Your task to perform on an android device: open app "LiveIn - Share Your Moment" (install if not already installed) and go to login screen Image 0: 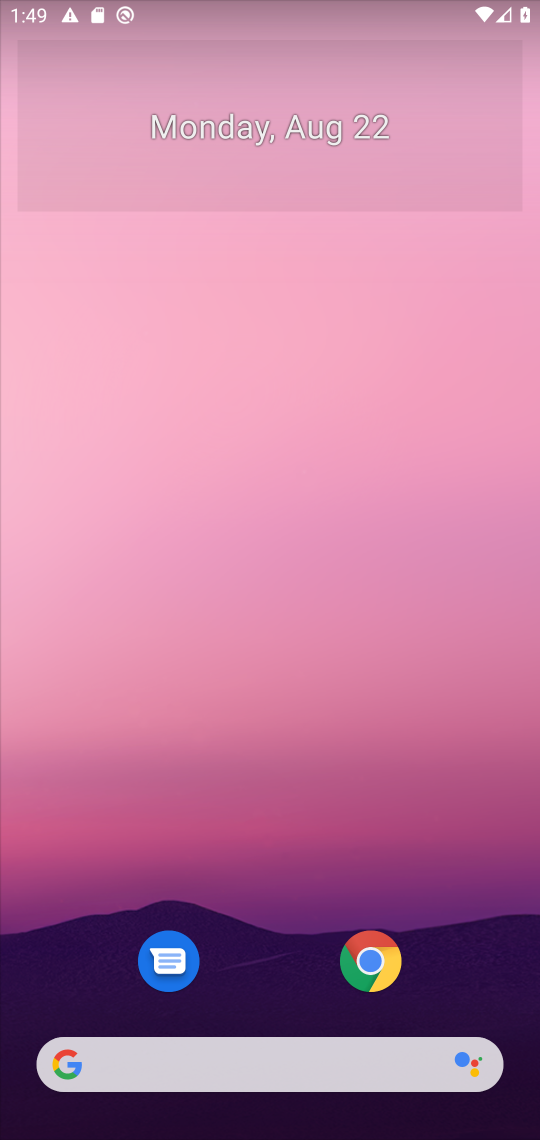
Step 0: press home button
Your task to perform on an android device: open app "LiveIn - Share Your Moment" (install if not already installed) and go to login screen Image 1: 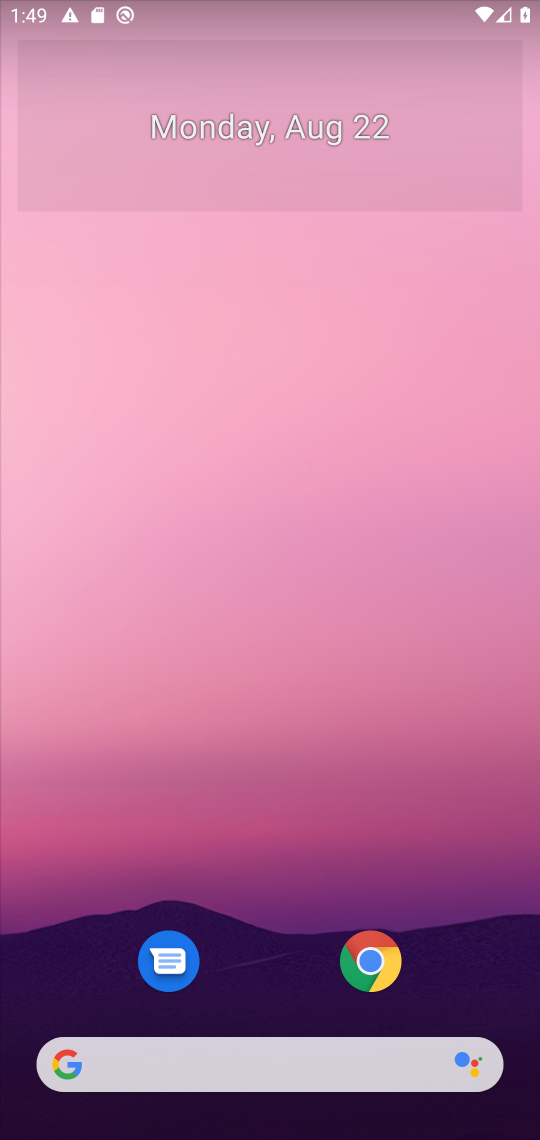
Step 1: drag from (464, 983) to (514, 108)
Your task to perform on an android device: open app "LiveIn - Share Your Moment" (install if not already installed) and go to login screen Image 2: 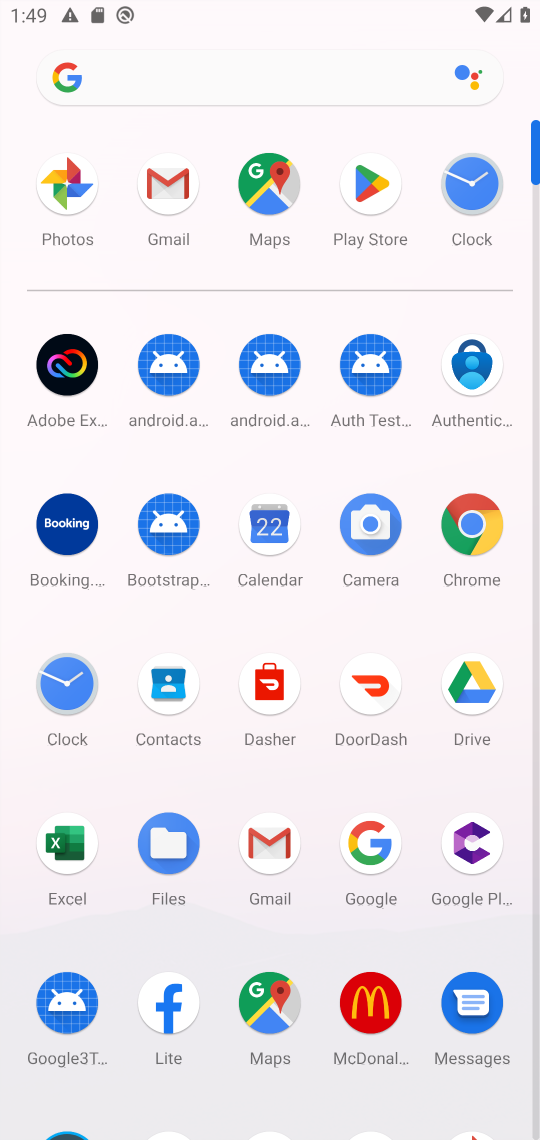
Step 2: click (373, 181)
Your task to perform on an android device: open app "LiveIn - Share Your Moment" (install if not already installed) and go to login screen Image 3: 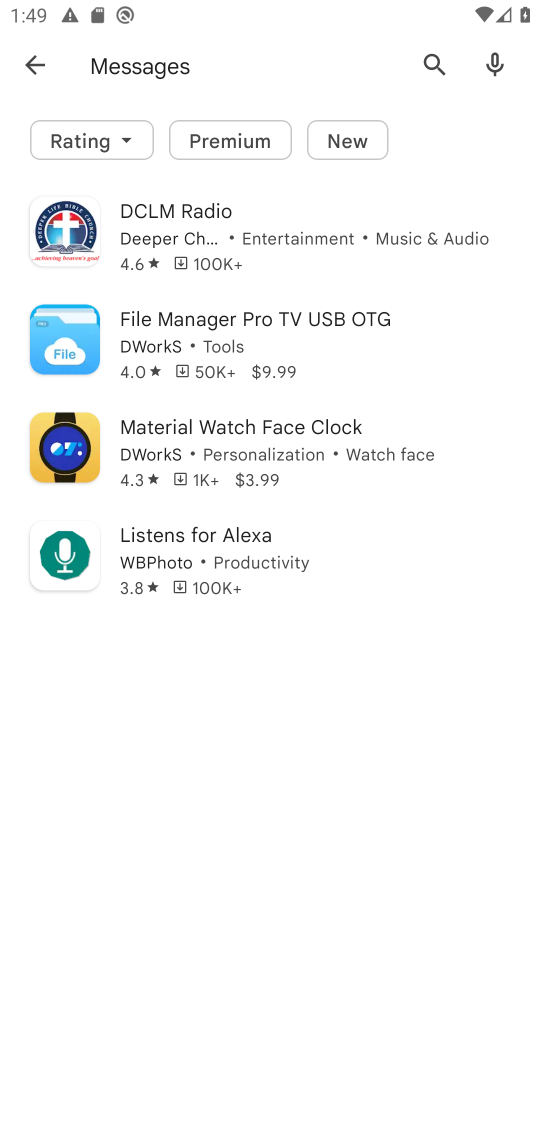
Step 3: press back button
Your task to perform on an android device: open app "LiveIn - Share Your Moment" (install if not already installed) and go to login screen Image 4: 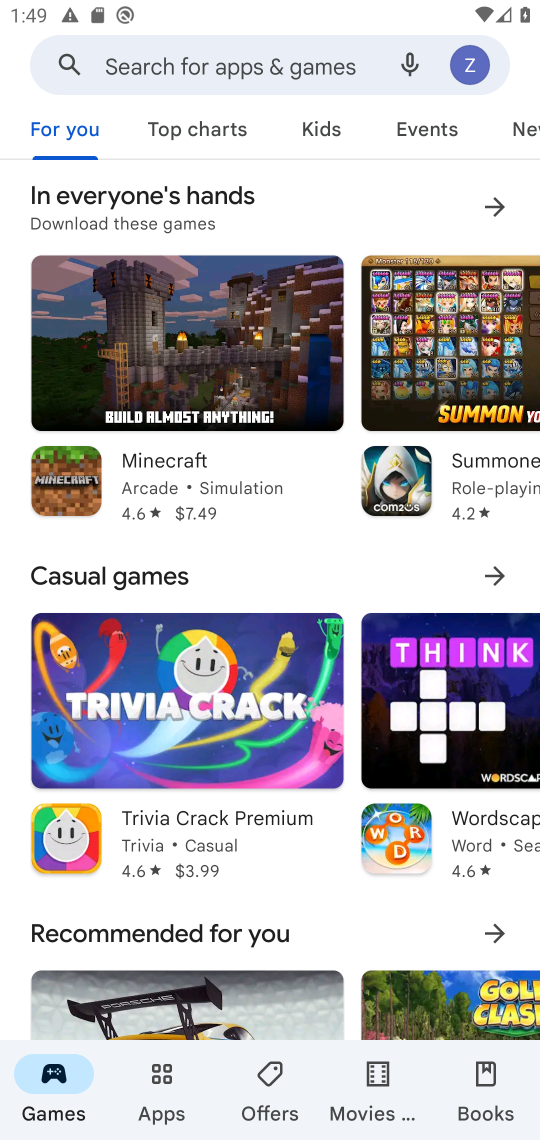
Step 4: click (302, 66)
Your task to perform on an android device: open app "LiveIn - Share Your Moment" (install if not already installed) and go to login screen Image 5: 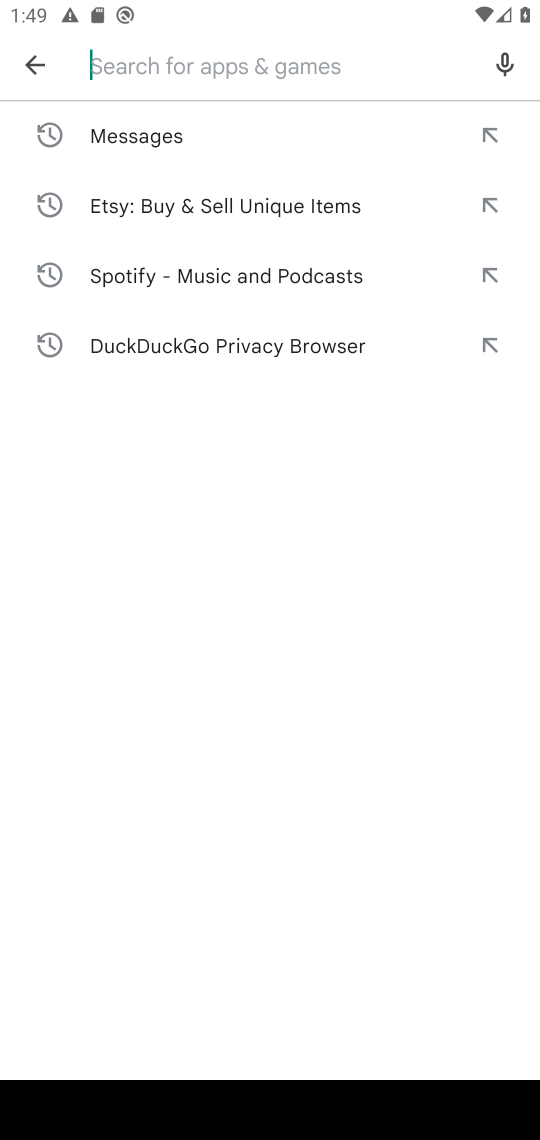
Step 5: type "LiveIn - Share Your Moment"
Your task to perform on an android device: open app "LiveIn - Share Your Moment" (install if not already installed) and go to login screen Image 6: 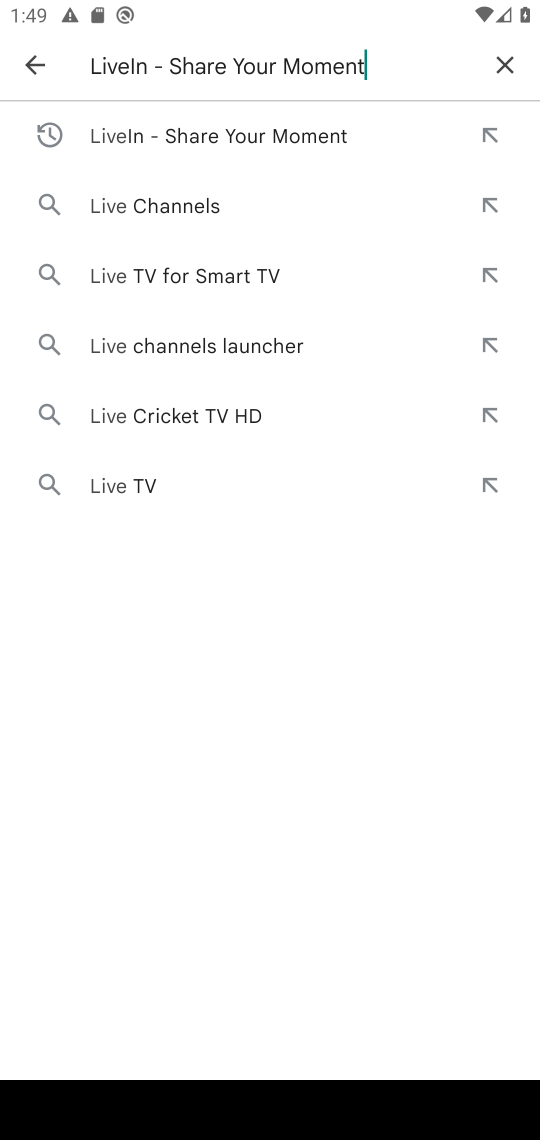
Step 6: press enter
Your task to perform on an android device: open app "LiveIn - Share Your Moment" (install if not already installed) and go to login screen Image 7: 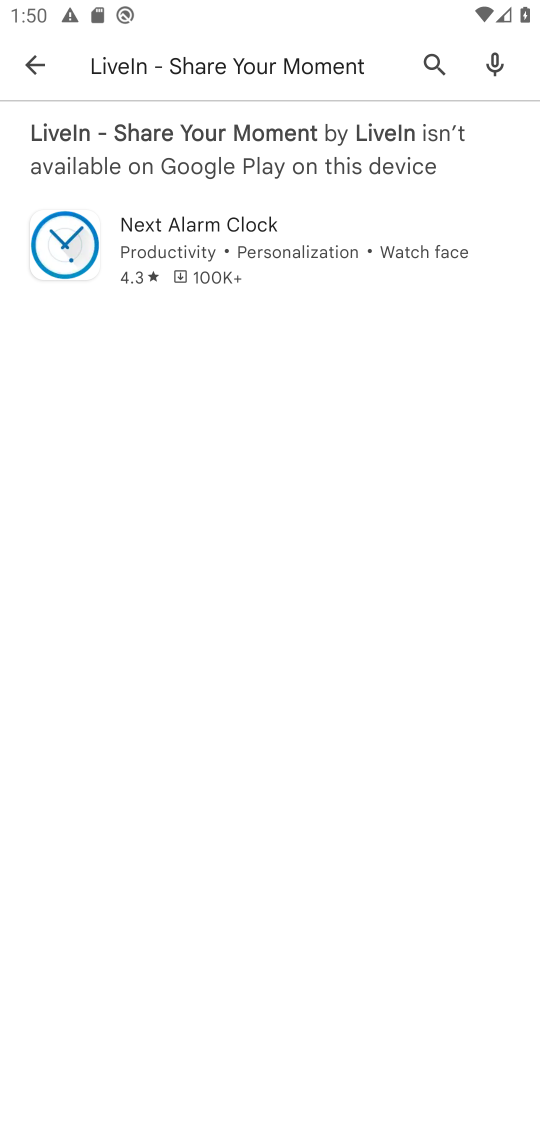
Step 7: task complete